Your task to perform on an android device: Open my contact list Image 0: 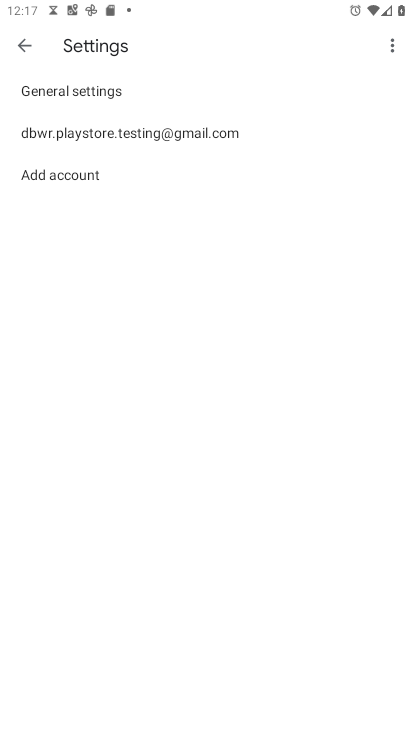
Step 0: press home button
Your task to perform on an android device: Open my contact list Image 1: 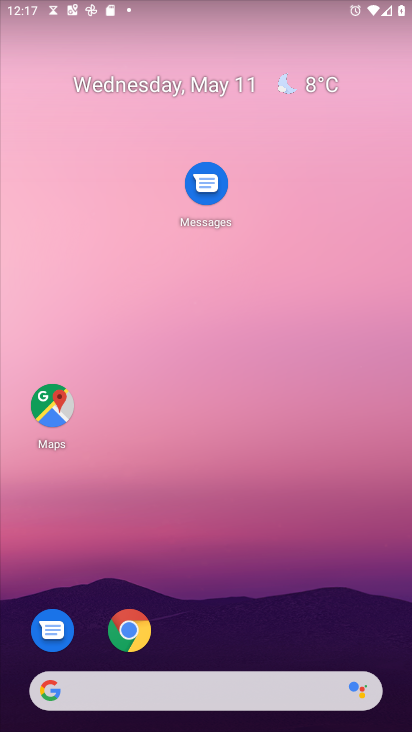
Step 1: drag from (225, 587) to (268, 152)
Your task to perform on an android device: Open my contact list Image 2: 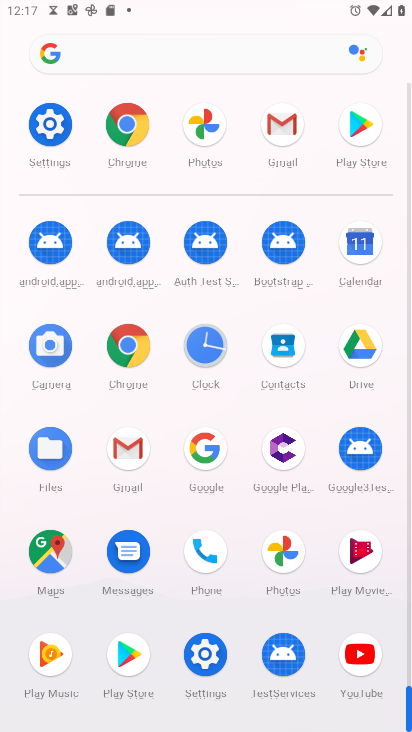
Step 2: click (286, 353)
Your task to perform on an android device: Open my contact list Image 3: 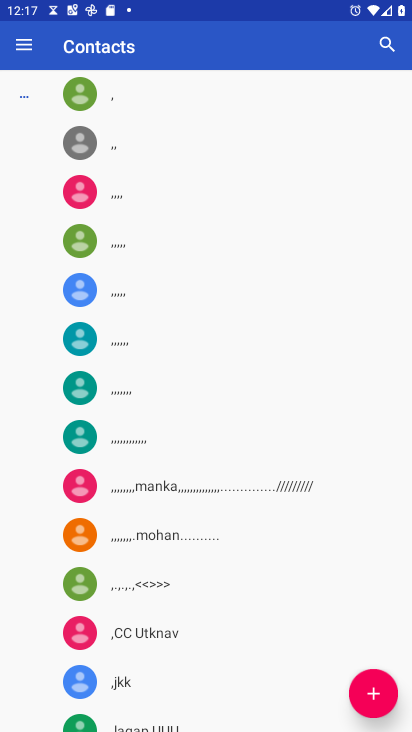
Step 3: task complete